Your task to perform on an android device: Open Chrome and go to the settings page Image 0: 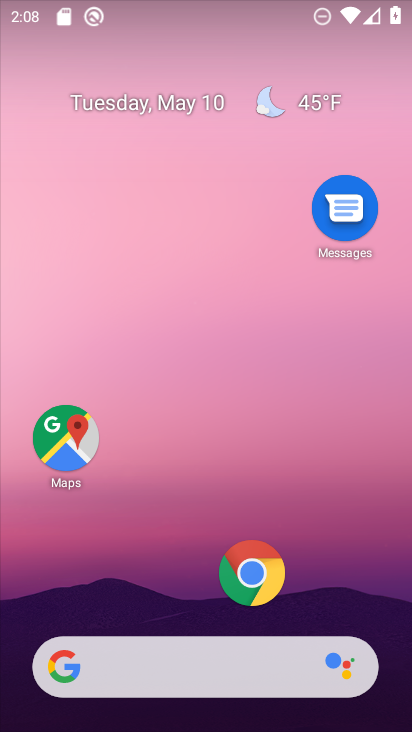
Step 0: drag from (185, 615) to (197, 390)
Your task to perform on an android device: Open Chrome and go to the settings page Image 1: 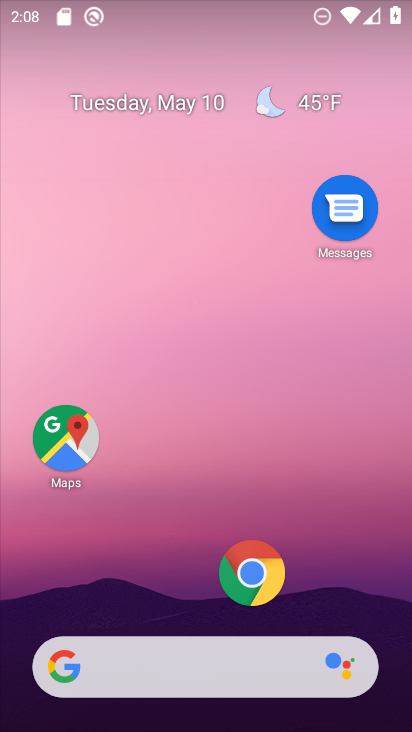
Step 1: drag from (207, 602) to (224, 279)
Your task to perform on an android device: Open Chrome and go to the settings page Image 2: 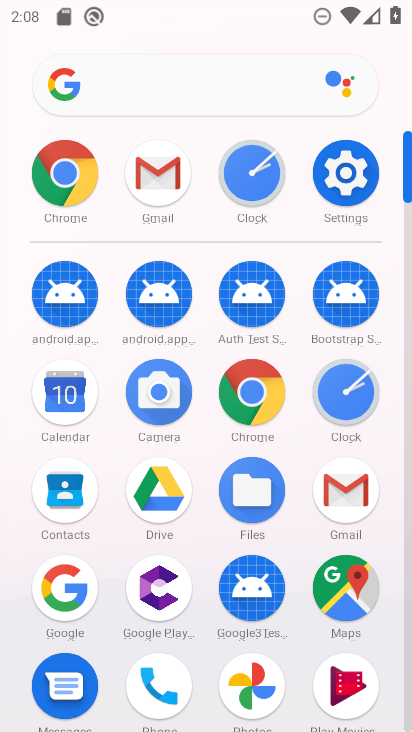
Step 2: click (249, 384)
Your task to perform on an android device: Open Chrome and go to the settings page Image 3: 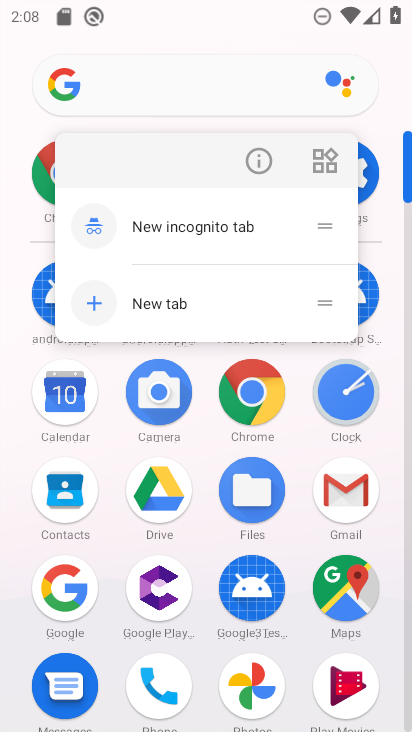
Step 3: click (247, 166)
Your task to perform on an android device: Open Chrome and go to the settings page Image 4: 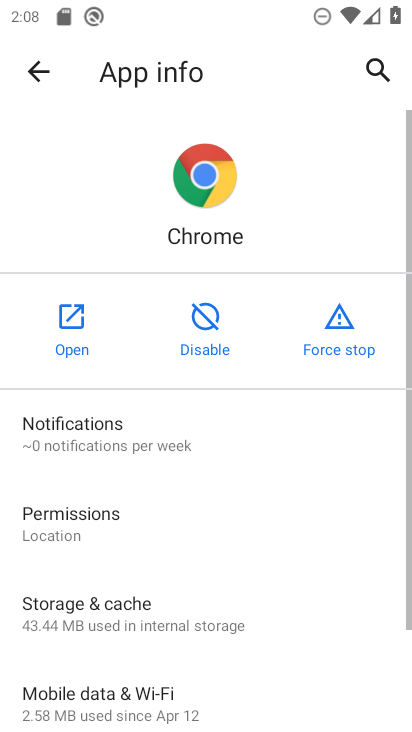
Step 4: click (70, 315)
Your task to perform on an android device: Open Chrome and go to the settings page Image 5: 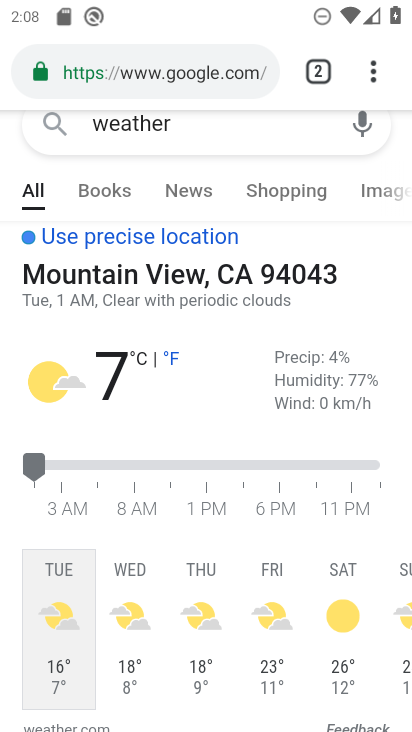
Step 5: task complete